Your task to perform on an android device: Open Reddit.com Image 0: 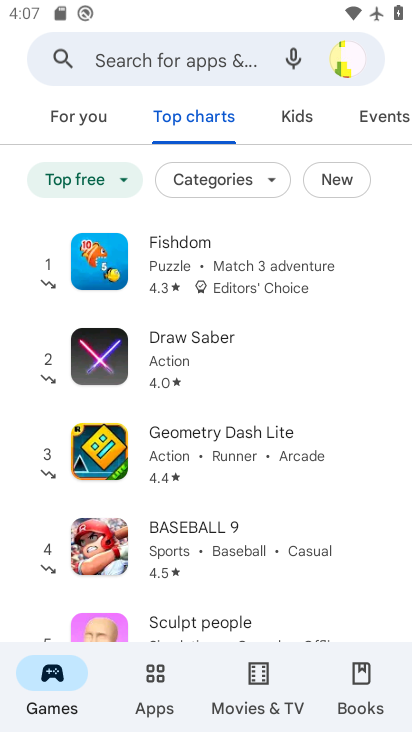
Step 0: press home button
Your task to perform on an android device: Open Reddit.com Image 1: 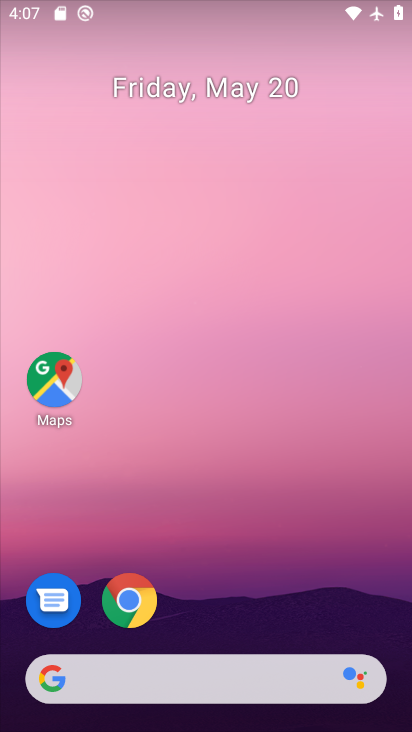
Step 1: click (243, 677)
Your task to perform on an android device: Open Reddit.com Image 2: 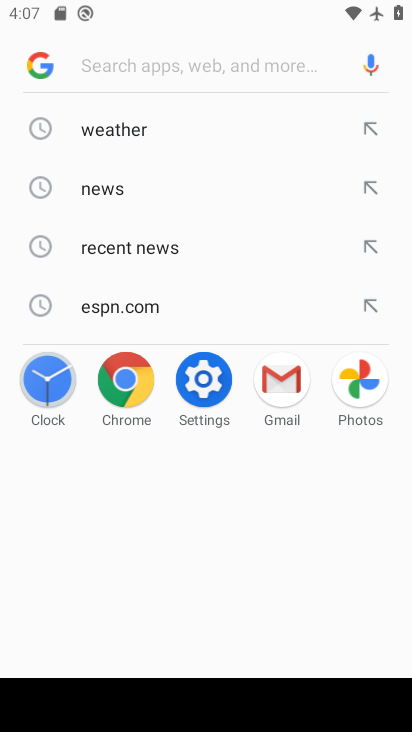
Step 2: type "Reddit.com"
Your task to perform on an android device: Open Reddit.com Image 3: 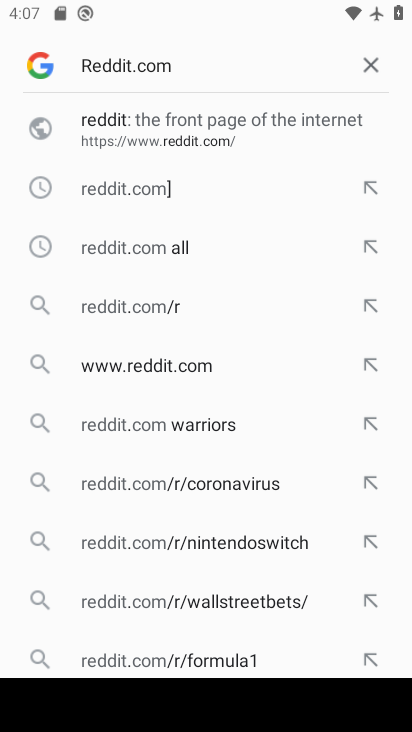
Step 3: click (156, 365)
Your task to perform on an android device: Open Reddit.com Image 4: 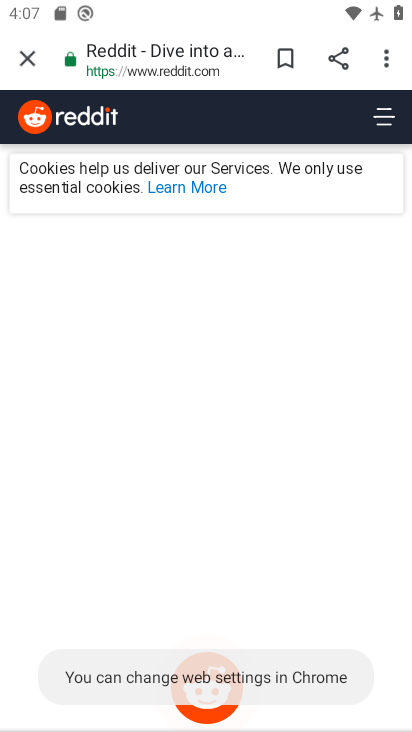
Step 4: task complete